Your task to perform on an android device: Go to Google maps Image 0: 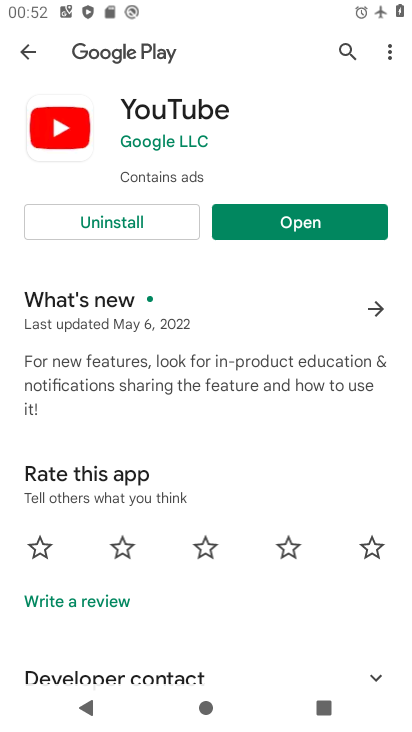
Step 0: press home button
Your task to perform on an android device: Go to Google maps Image 1: 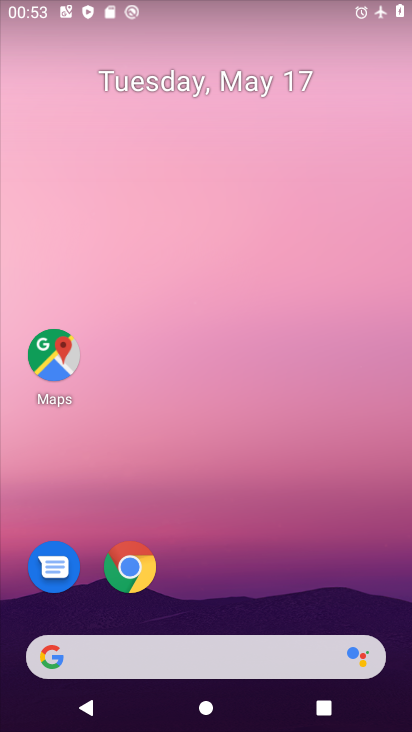
Step 1: click (48, 364)
Your task to perform on an android device: Go to Google maps Image 2: 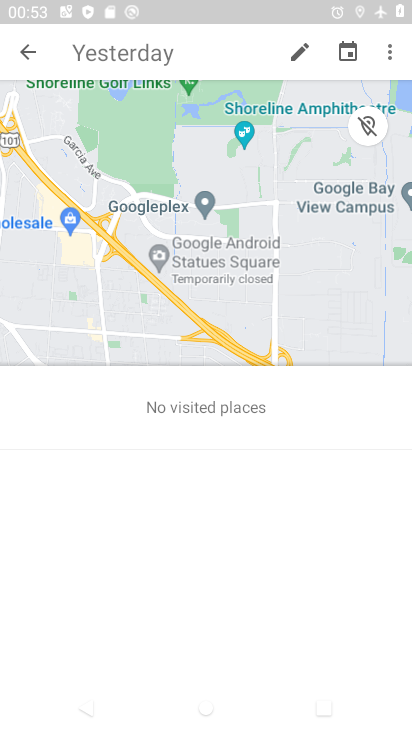
Step 2: click (33, 47)
Your task to perform on an android device: Go to Google maps Image 3: 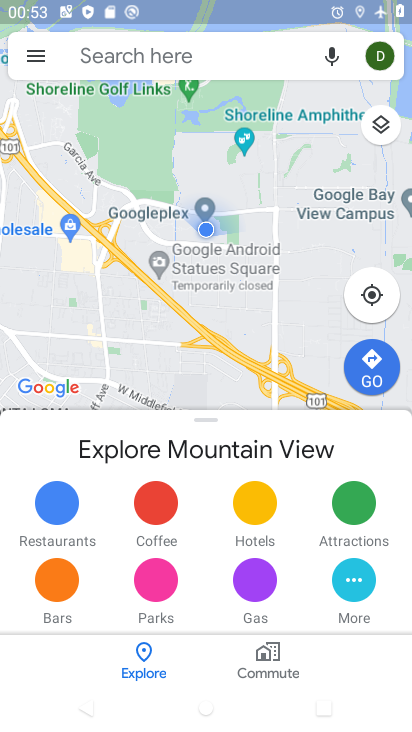
Step 3: task complete